Your task to perform on an android device: Go to notification settings Image 0: 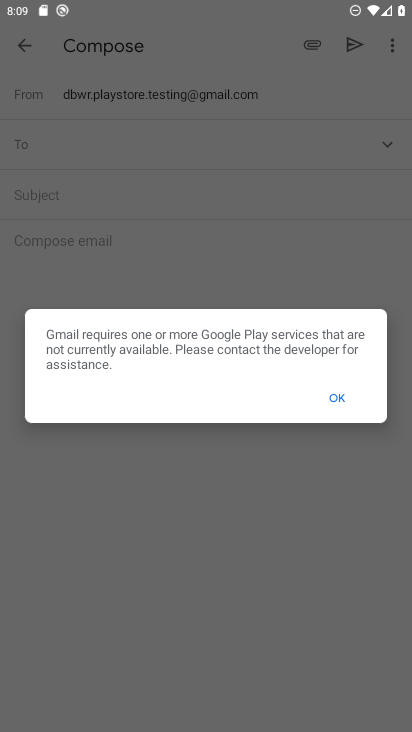
Step 0: press home button
Your task to perform on an android device: Go to notification settings Image 1: 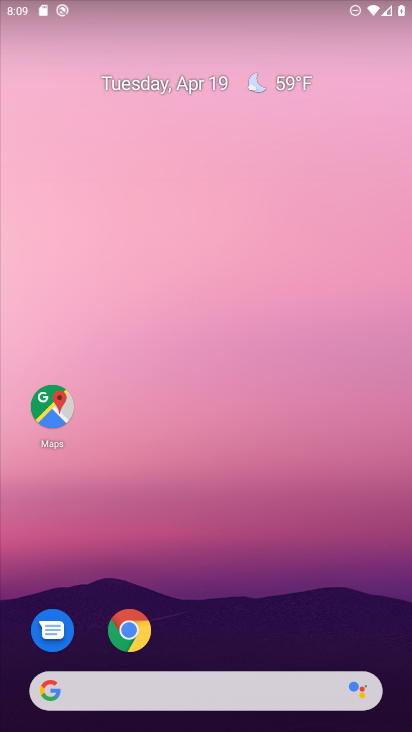
Step 1: drag from (195, 654) to (233, 12)
Your task to perform on an android device: Go to notification settings Image 2: 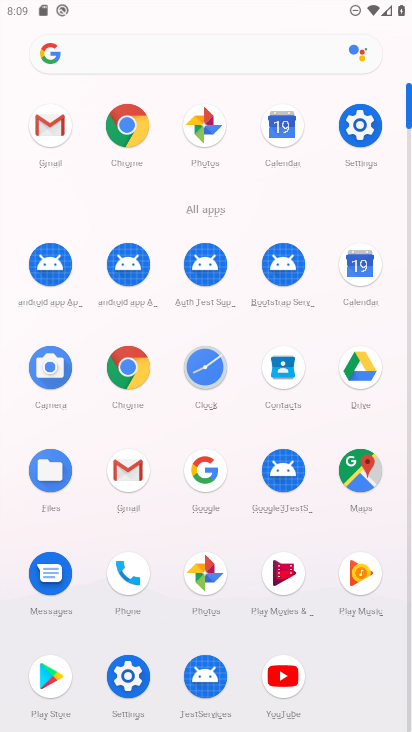
Step 2: click (361, 134)
Your task to perform on an android device: Go to notification settings Image 3: 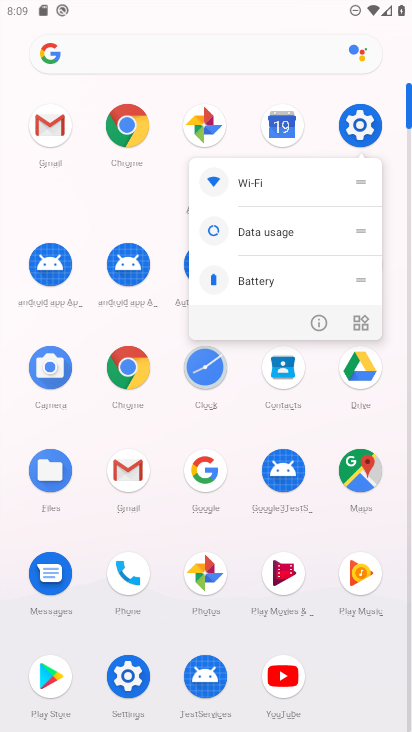
Step 3: click (354, 131)
Your task to perform on an android device: Go to notification settings Image 4: 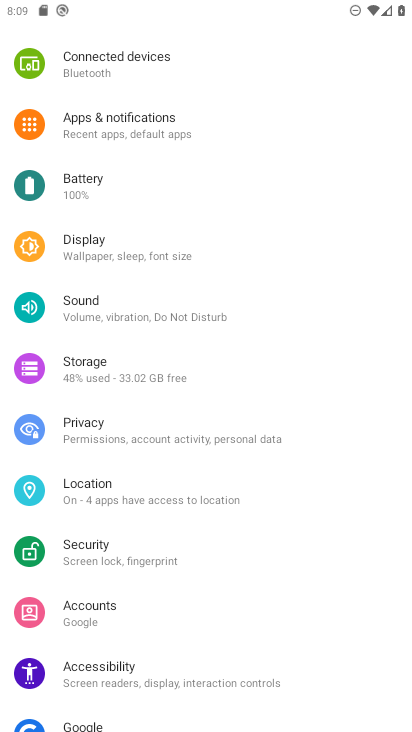
Step 4: click (207, 120)
Your task to perform on an android device: Go to notification settings Image 5: 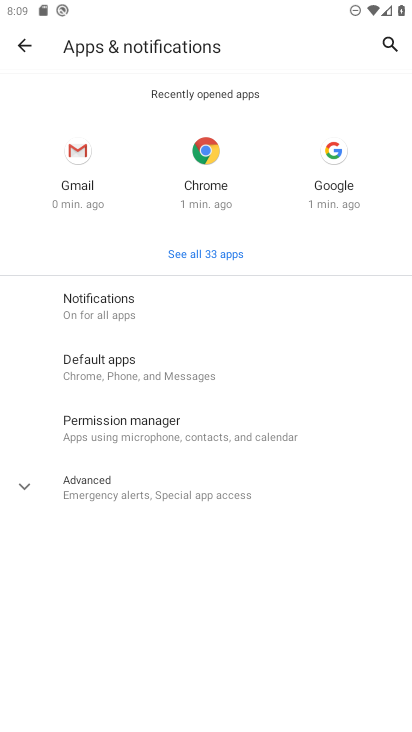
Step 5: click (159, 309)
Your task to perform on an android device: Go to notification settings Image 6: 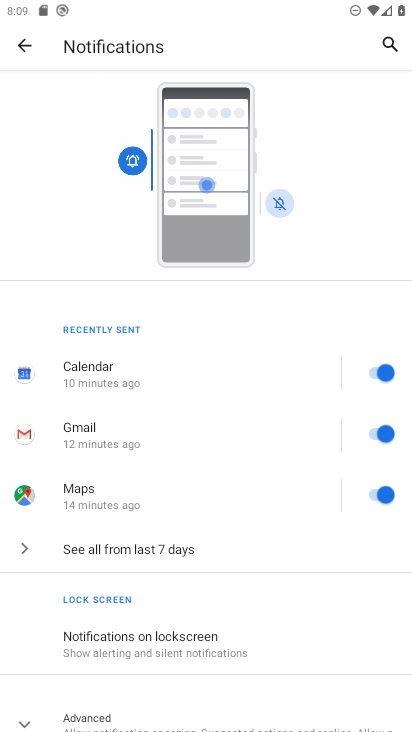
Step 6: task complete